Your task to perform on an android device: open chrome and create a bookmark for the current page Image 0: 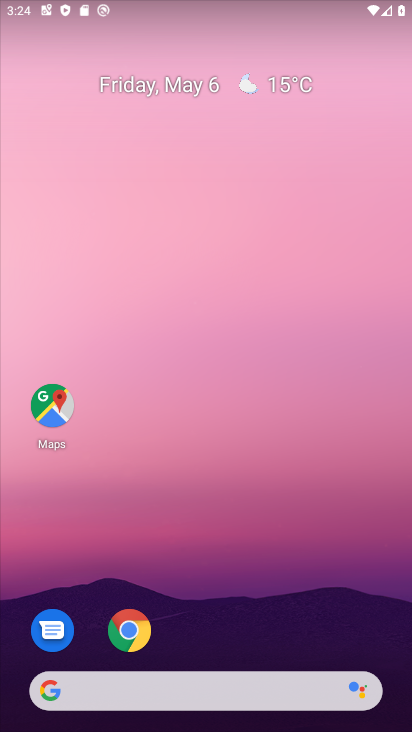
Step 0: click (130, 637)
Your task to perform on an android device: open chrome and create a bookmark for the current page Image 1: 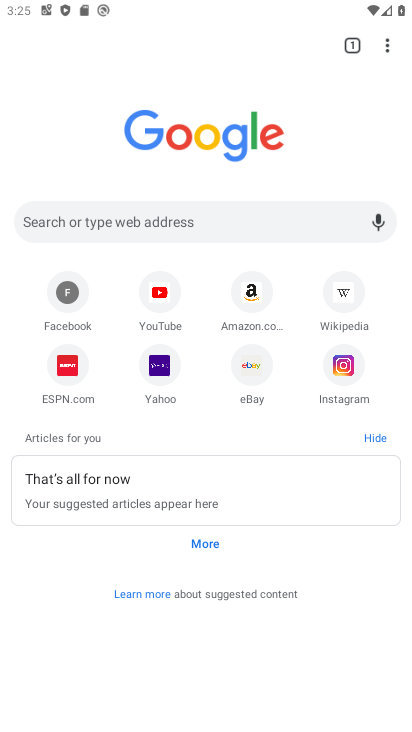
Step 1: click (380, 44)
Your task to perform on an android device: open chrome and create a bookmark for the current page Image 2: 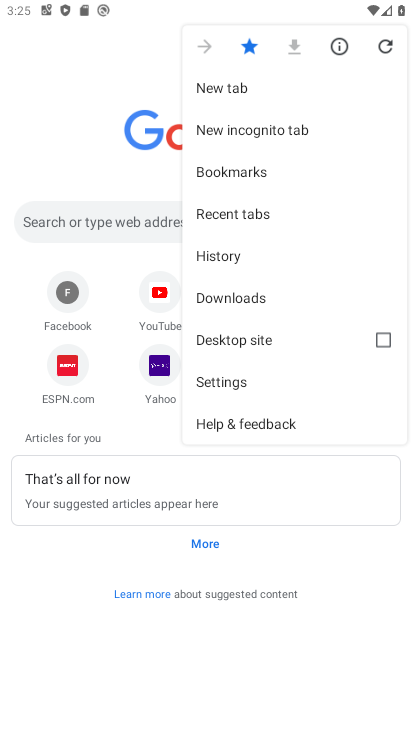
Step 2: click (111, 217)
Your task to perform on an android device: open chrome and create a bookmark for the current page Image 3: 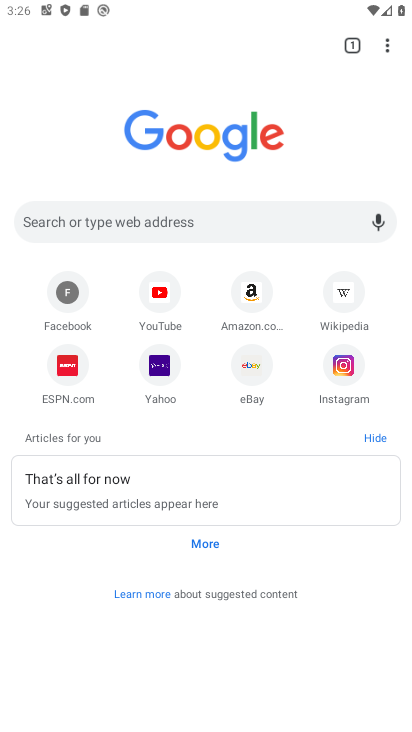
Step 3: click (111, 217)
Your task to perform on an android device: open chrome and create a bookmark for the current page Image 4: 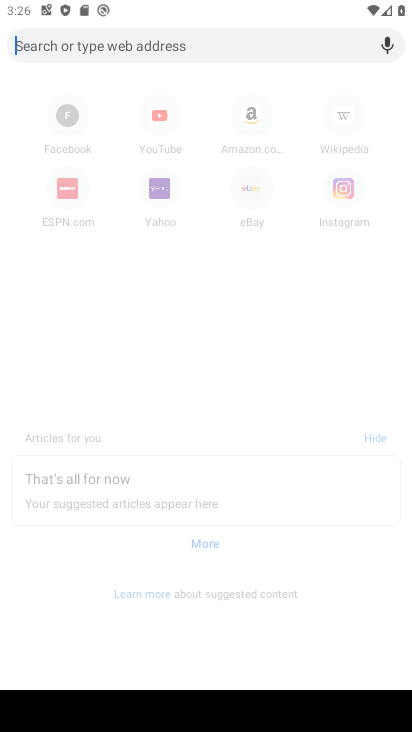
Step 4: type "fish"
Your task to perform on an android device: open chrome and create a bookmark for the current page Image 5: 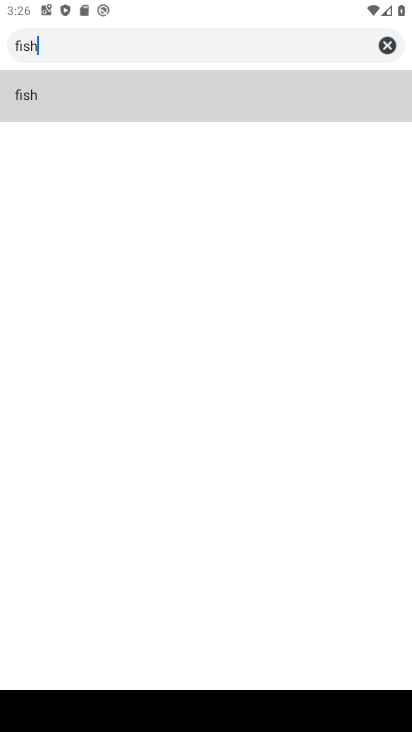
Step 5: type ""
Your task to perform on an android device: open chrome and create a bookmark for the current page Image 6: 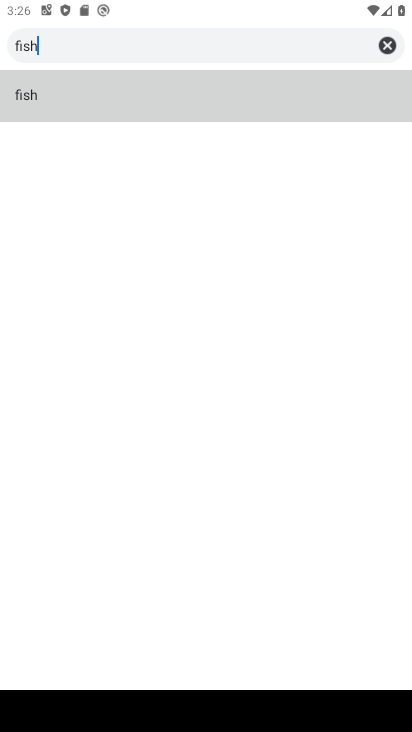
Step 6: click (229, 89)
Your task to perform on an android device: open chrome and create a bookmark for the current page Image 7: 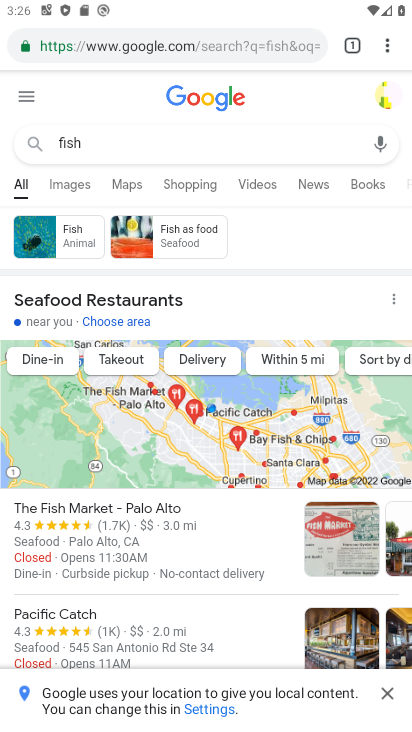
Step 7: task complete